Your task to perform on an android device: Open internet settings Image 0: 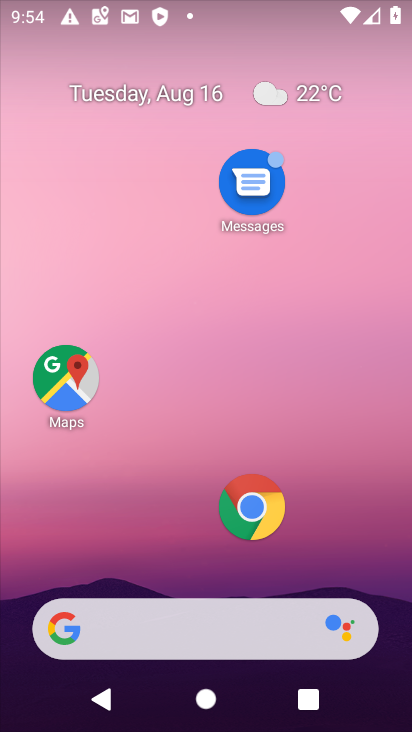
Step 0: drag from (181, 421) to (316, 0)
Your task to perform on an android device: Open internet settings Image 1: 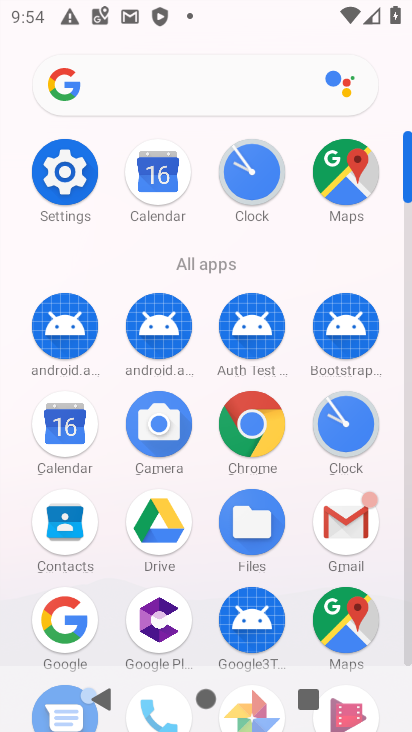
Step 1: click (78, 174)
Your task to perform on an android device: Open internet settings Image 2: 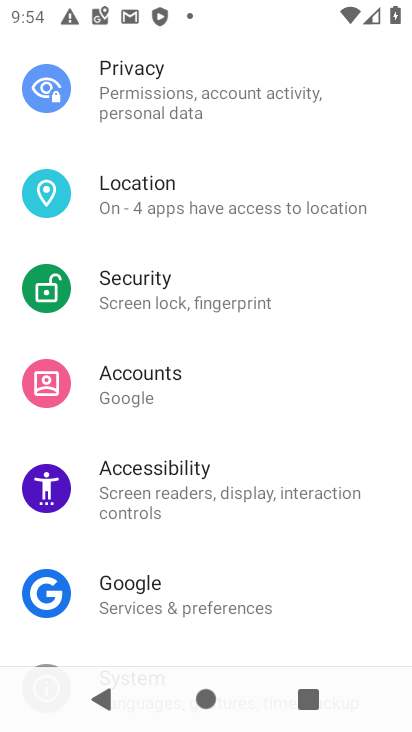
Step 2: drag from (296, 122) to (191, 676)
Your task to perform on an android device: Open internet settings Image 3: 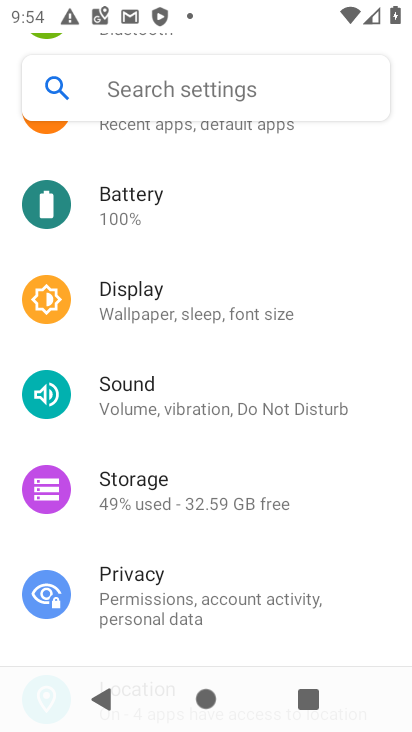
Step 3: drag from (276, 223) to (165, 729)
Your task to perform on an android device: Open internet settings Image 4: 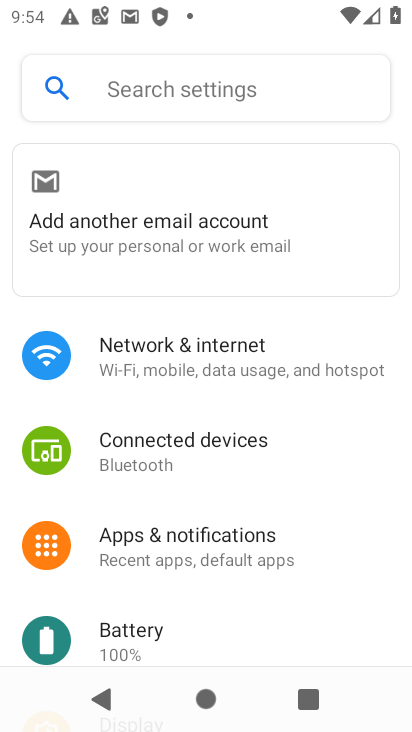
Step 4: click (189, 350)
Your task to perform on an android device: Open internet settings Image 5: 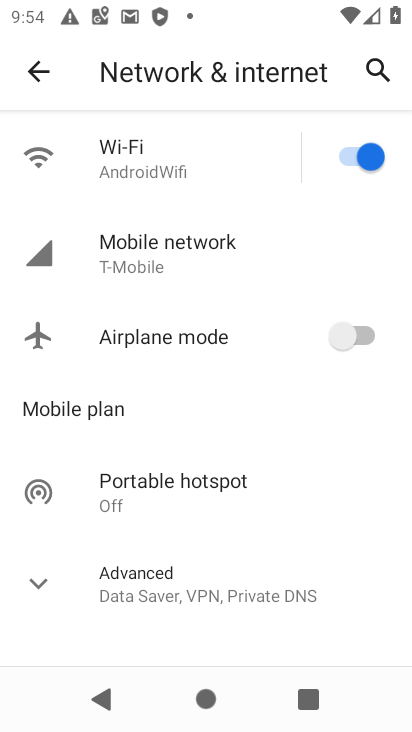
Step 5: task complete